Your task to perform on an android device: Open notification settings Image 0: 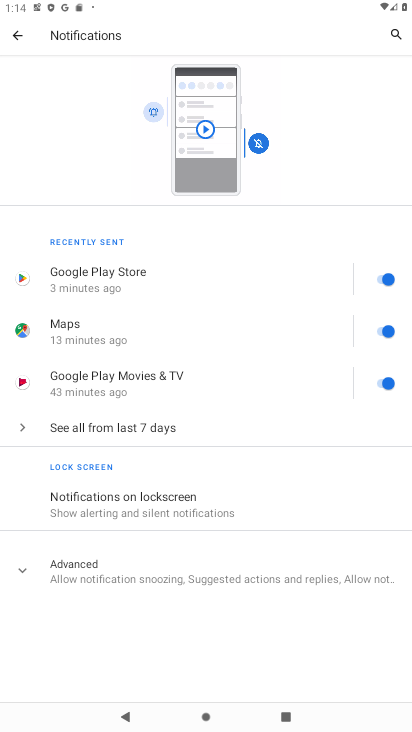
Step 0: drag from (214, 486) to (219, 335)
Your task to perform on an android device: Open notification settings Image 1: 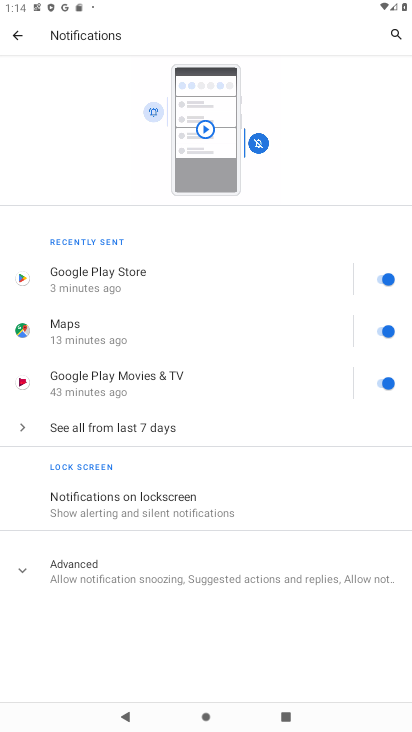
Step 1: task complete